Your task to perform on an android device: uninstall "Upside-Cash back on gas & food" Image 0: 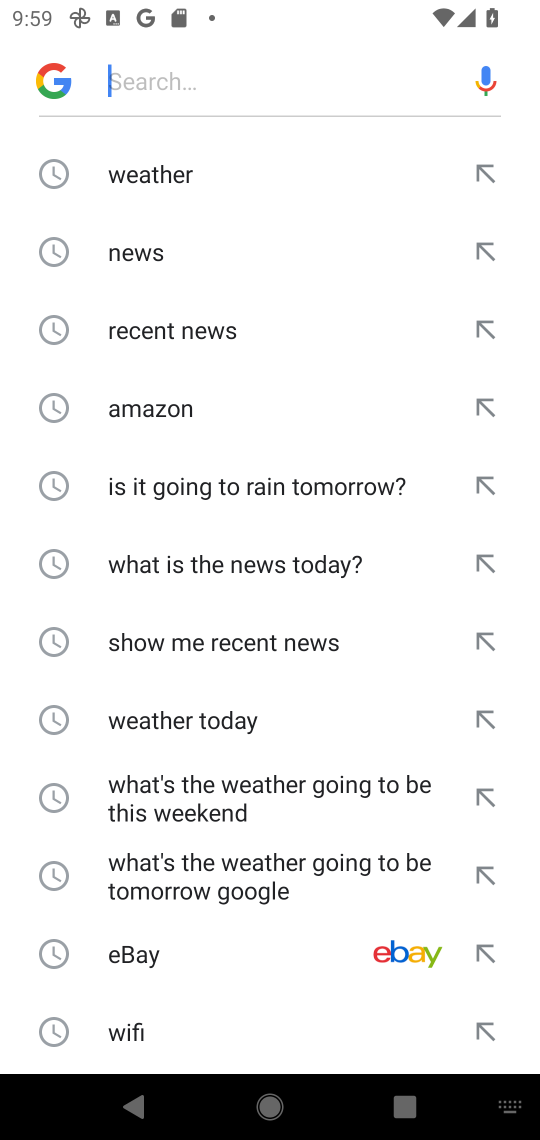
Step 0: press home button
Your task to perform on an android device: uninstall "Upside-Cash back on gas & food" Image 1: 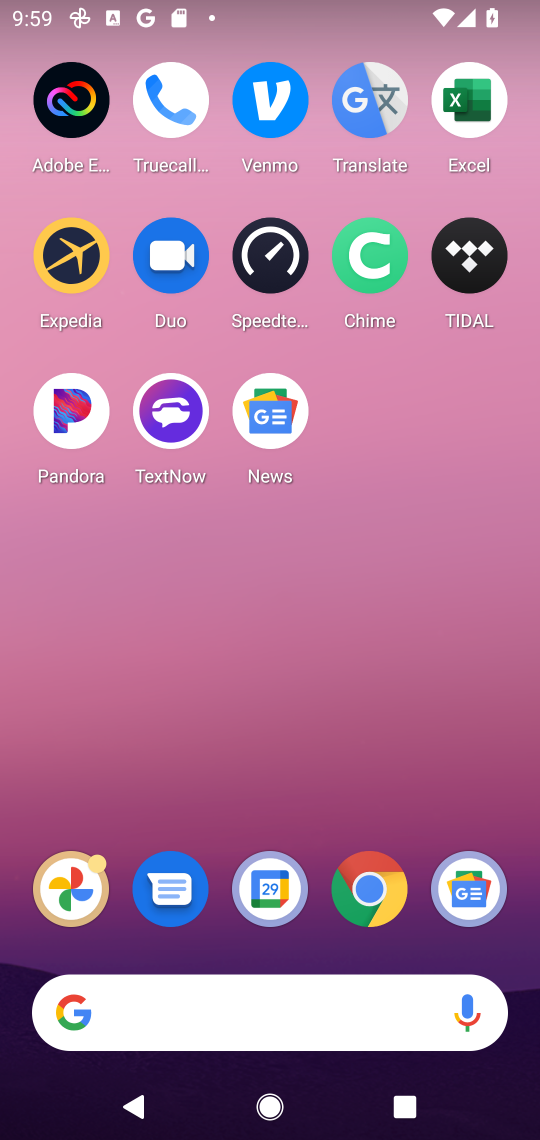
Step 1: press home button
Your task to perform on an android device: uninstall "Upside-Cash back on gas & food" Image 2: 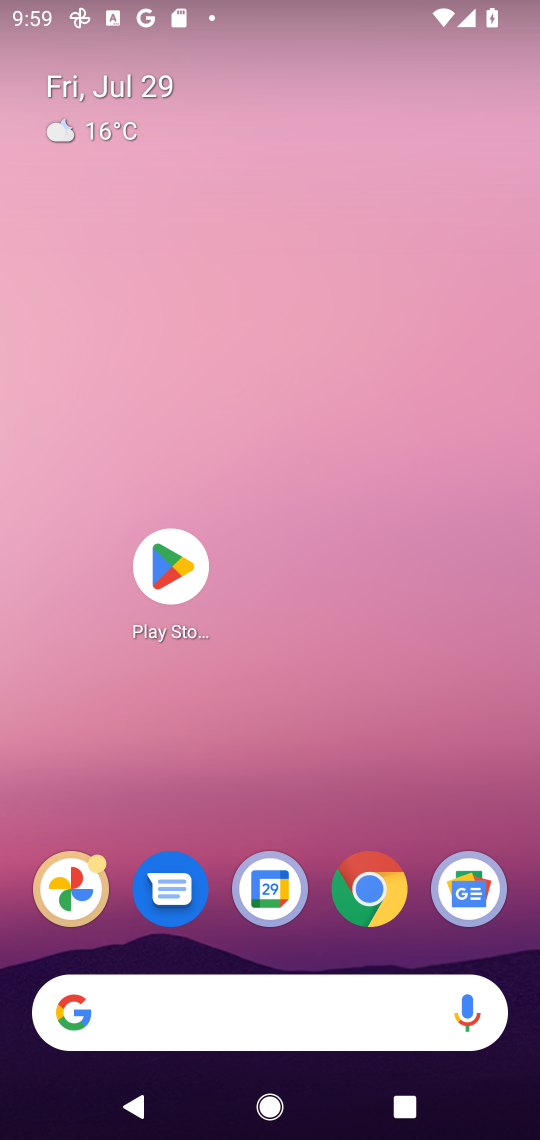
Step 2: click (174, 572)
Your task to perform on an android device: uninstall "Upside-Cash back on gas & food" Image 3: 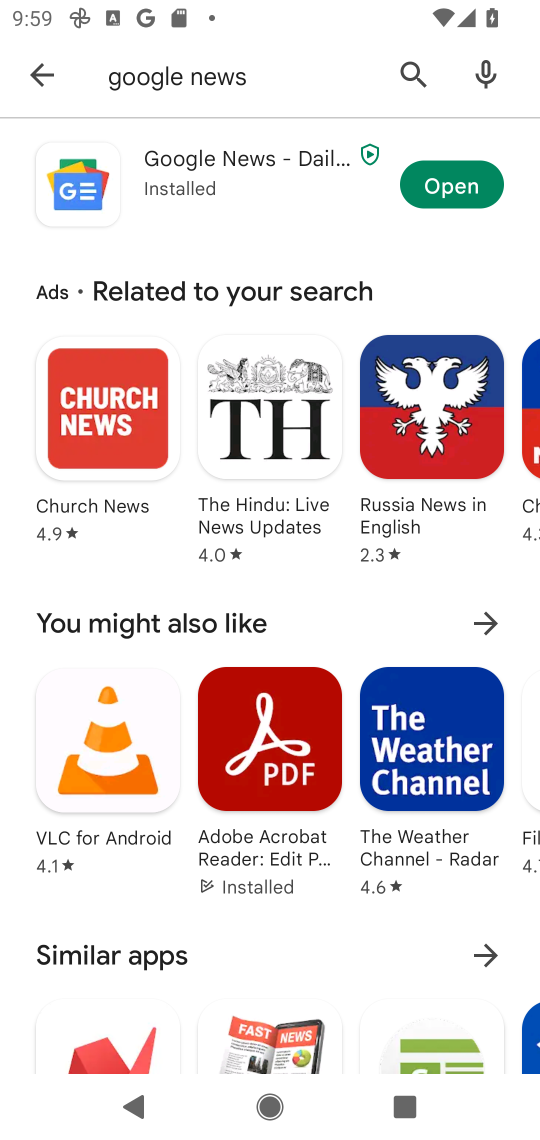
Step 3: click (415, 72)
Your task to perform on an android device: uninstall "Upside-Cash back on gas & food" Image 4: 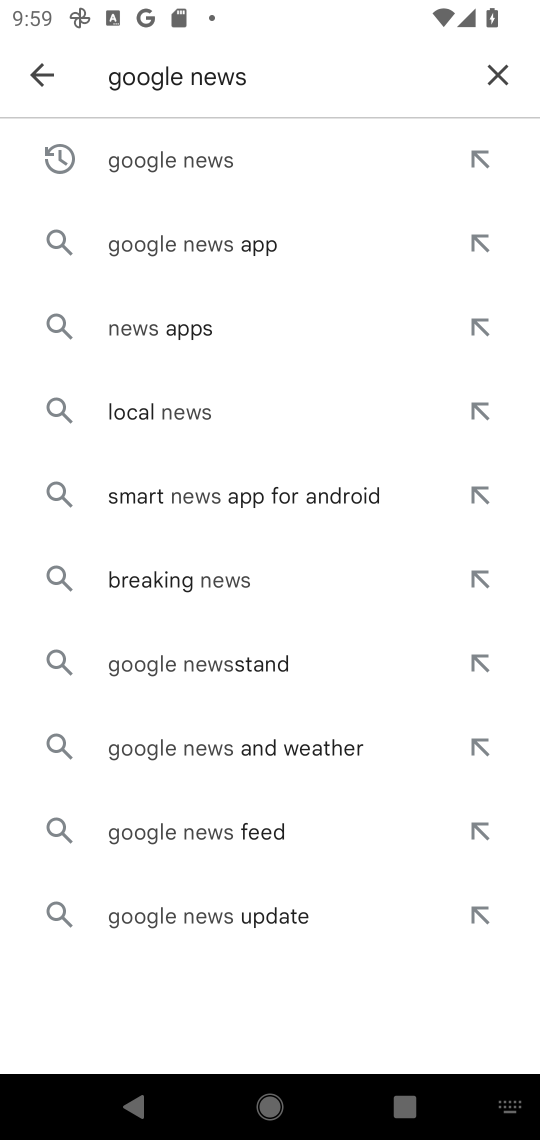
Step 4: click (496, 71)
Your task to perform on an android device: uninstall "Upside-Cash back on gas & food" Image 5: 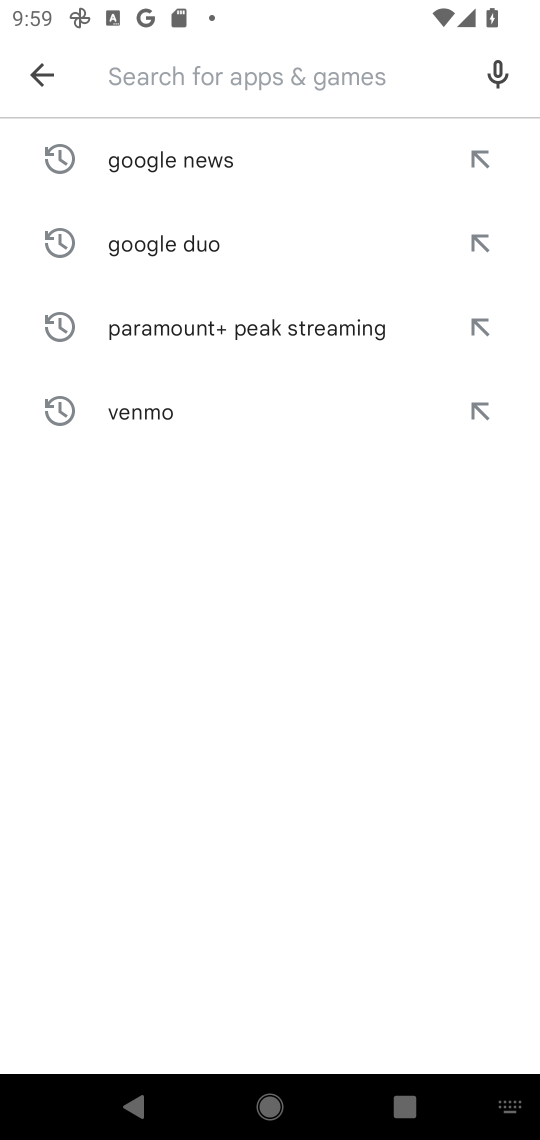
Step 5: type "Upside-Cash back on gas & food"
Your task to perform on an android device: uninstall "Upside-Cash back on gas & food" Image 6: 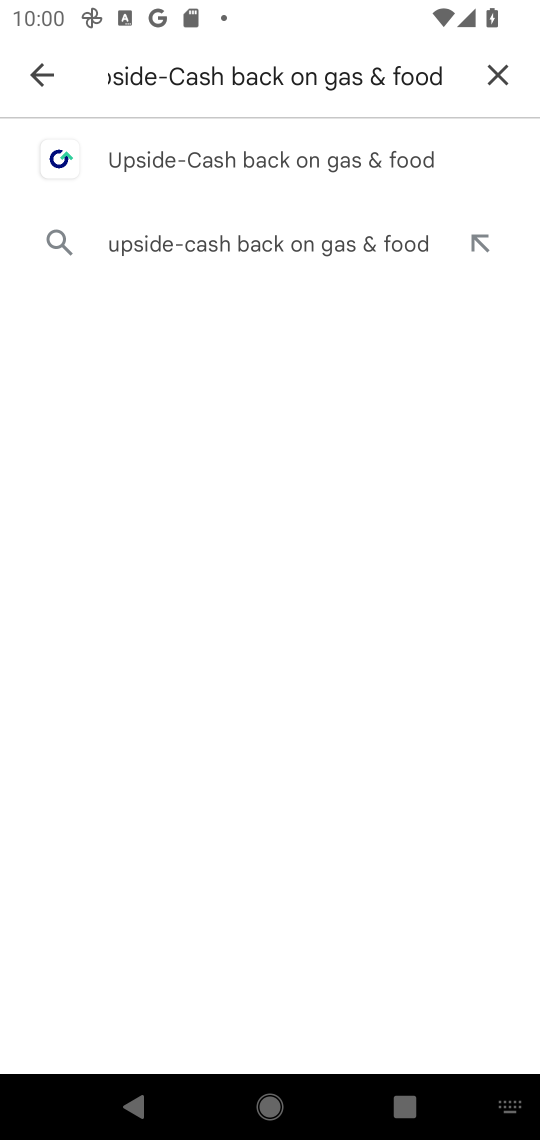
Step 6: click (340, 155)
Your task to perform on an android device: uninstall "Upside-Cash back on gas & food" Image 7: 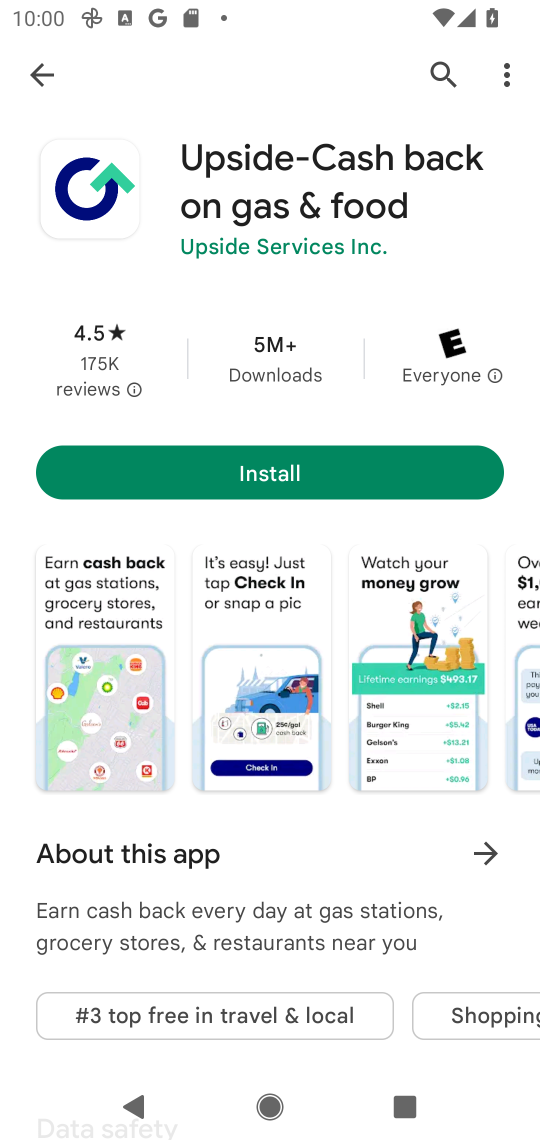
Step 7: task complete